Your task to perform on an android device: Turn off the flashlight Image 0: 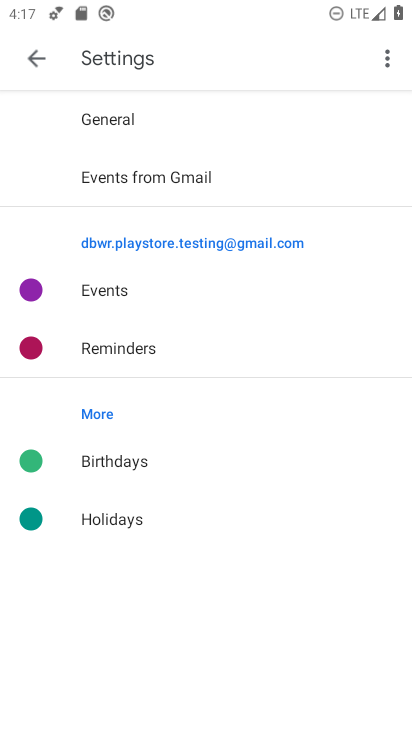
Step 0: click (28, 64)
Your task to perform on an android device: Turn off the flashlight Image 1: 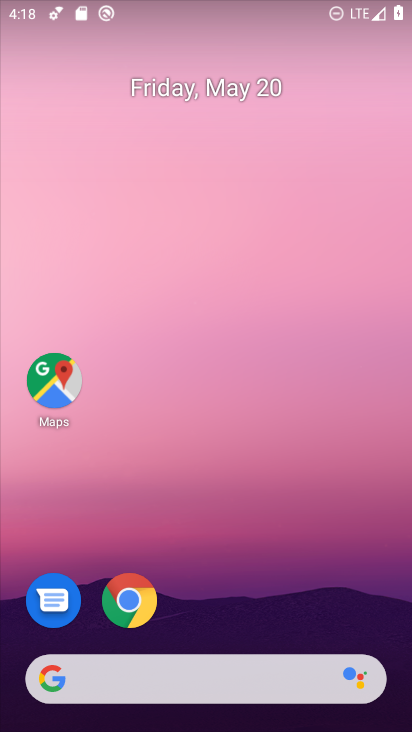
Step 1: drag from (218, 541) to (325, 16)
Your task to perform on an android device: Turn off the flashlight Image 2: 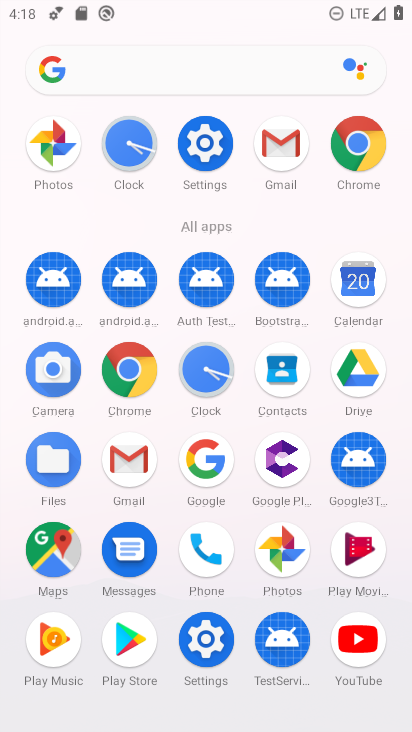
Step 2: click (200, 111)
Your task to perform on an android device: Turn off the flashlight Image 3: 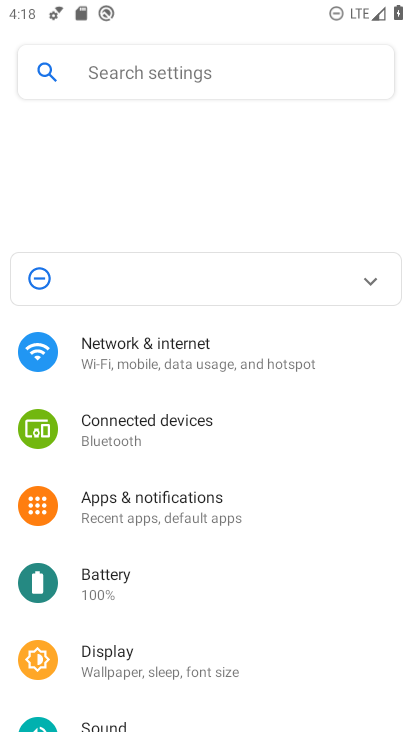
Step 3: click (147, 73)
Your task to perform on an android device: Turn off the flashlight Image 4: 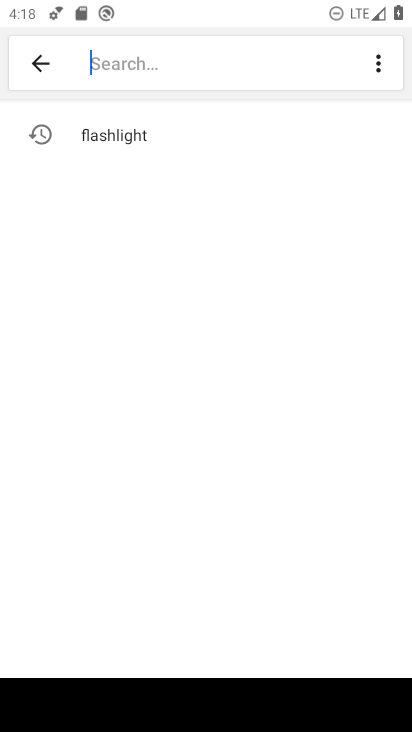
Step 4: type "flashlight"
Your task to perform on an android device: Turn off the flashlight Image 5: 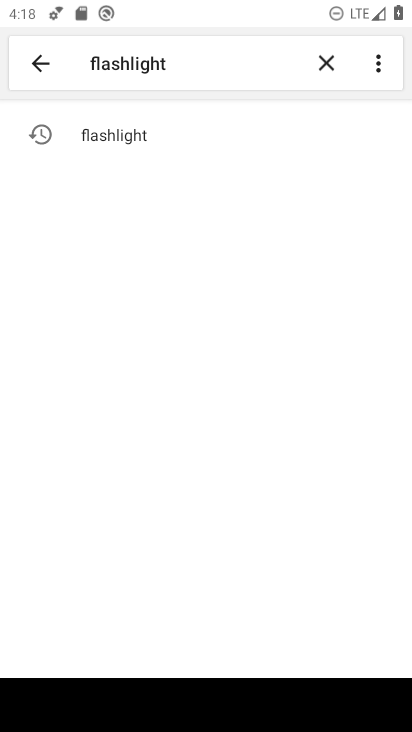
Step 5: click (123, 132)
Your task to perform on an android device: Turn off the flashlight Image 6: 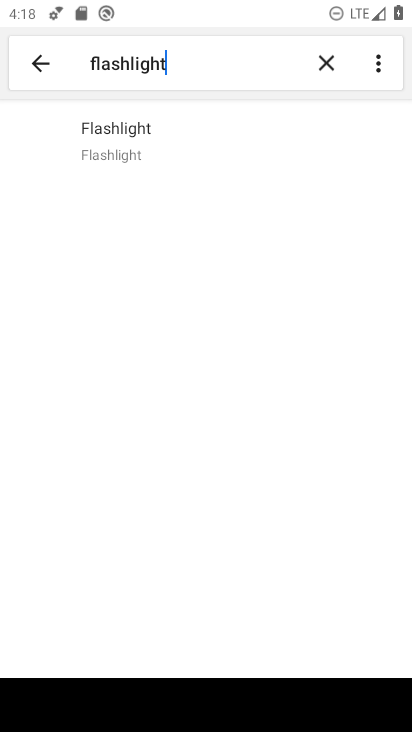
Step 6: click (103, 148)
Your task to perform on an android device: Turn off the flashlight Image 7: 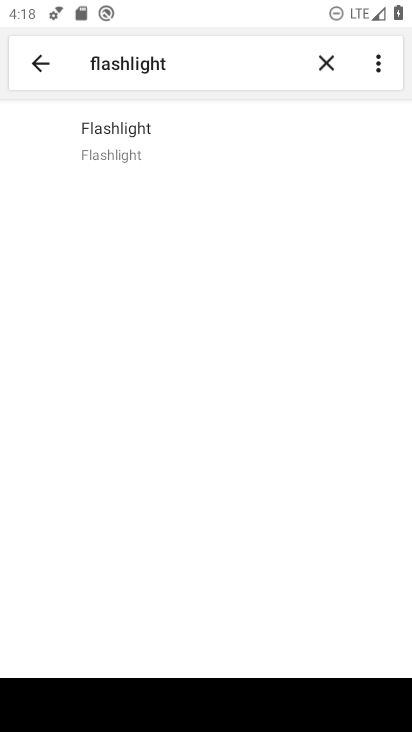
Step 7: task complete